Your task to perform on an android device: stop showing notifications on the lock screen Image 0: 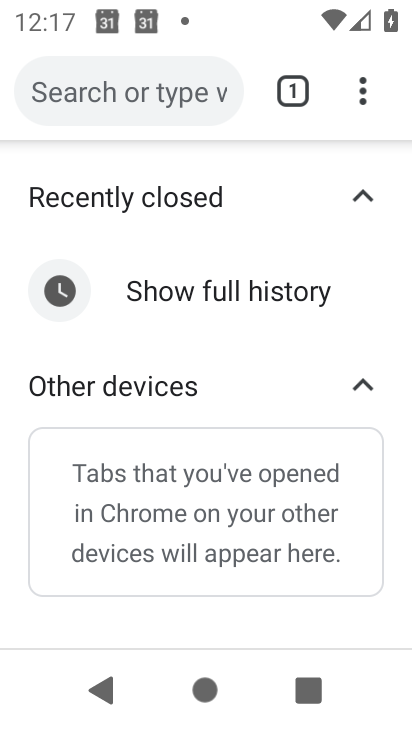
Step 0: press home button
Your task to perform on an android device: stop showing notifications on the lock screen Image 1: 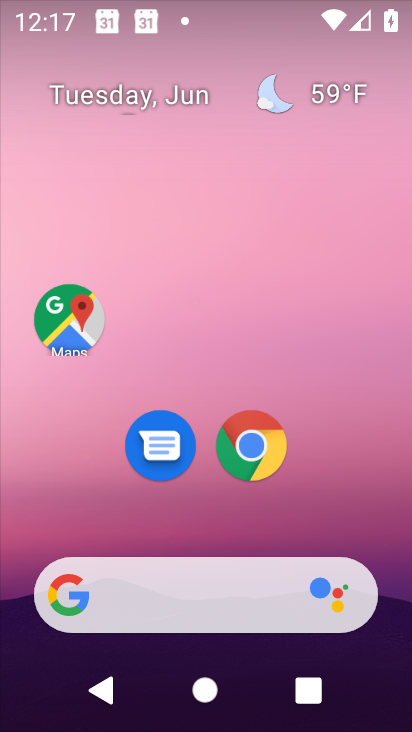
Step 1: drag from (169, 526) to (361, 24)
Your task to perform on an android device: stop showing notifications on the lock screen Image 2: 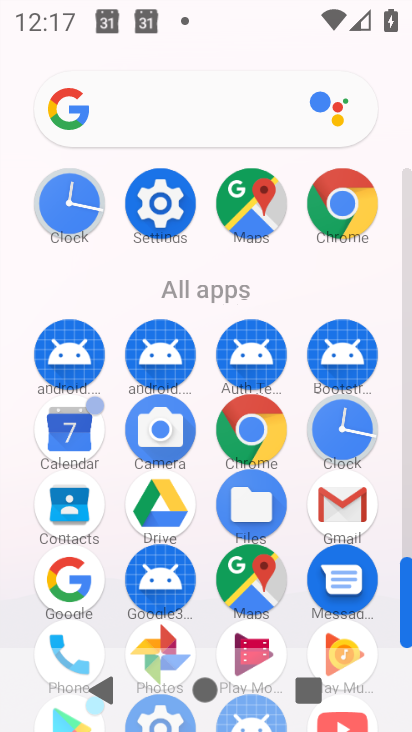
Step 2: click (148, 218)
Your task to perform on an android device: stop showing notifications on the lock screen Image 3: 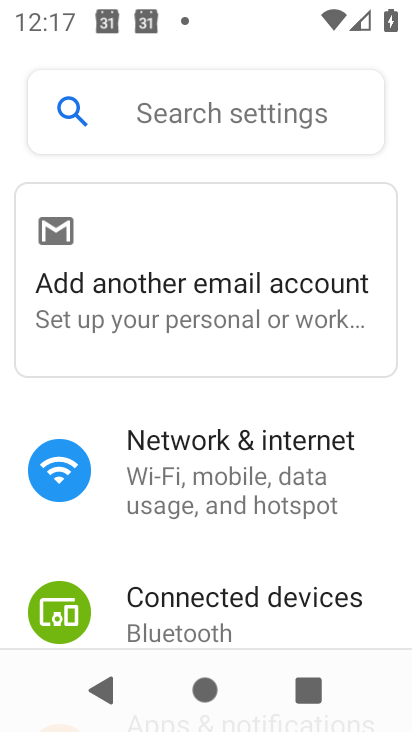
Step 3: drag from (215, 547) to (400, 391)
Your task to perform on an android device: stop showing notifications on the lock screen Image 4: 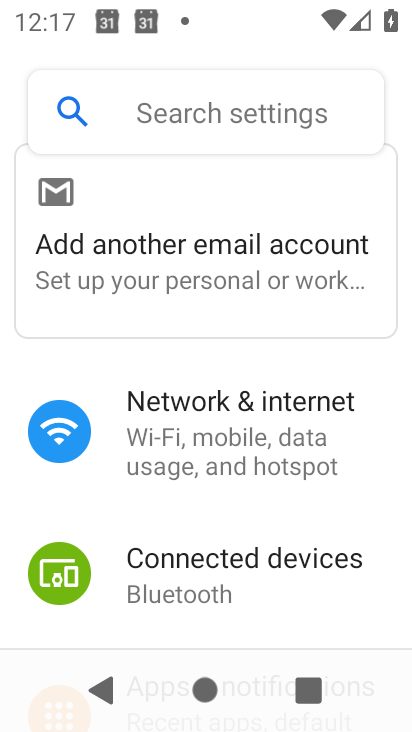
Step 4: click (189, 315)
Your task to perform on an android device: stop showing notifications on the lock screen Image 5: 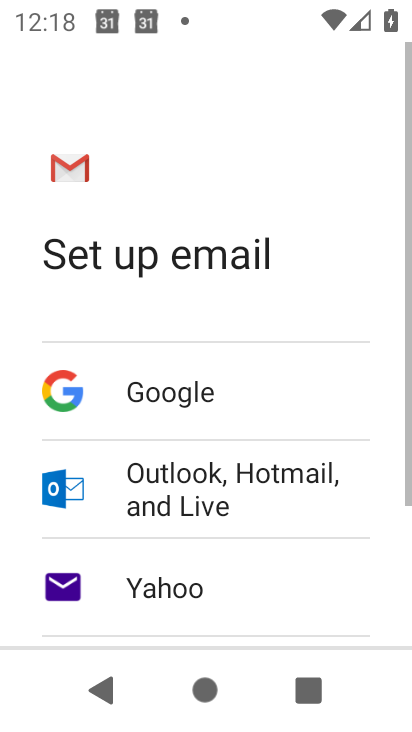
Step 5: press back button
Your task to perform on an android device: stop showing notifications on the lock screen Image 6: 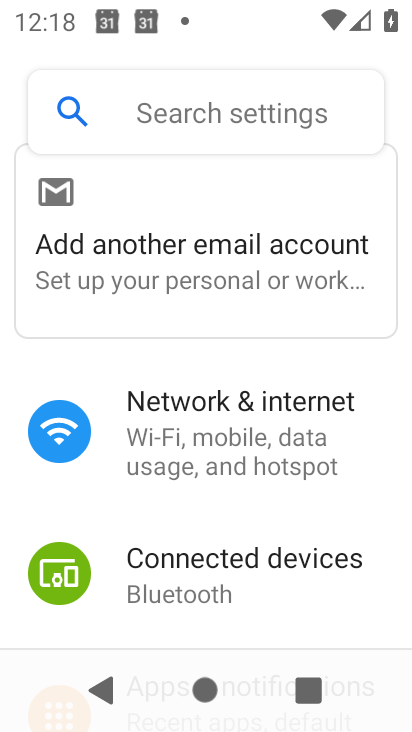
Step 6: drag from (76, 589) to (170, 46)
Your task to perform on an android device: stop showing notifications on the lock screen Image 7: 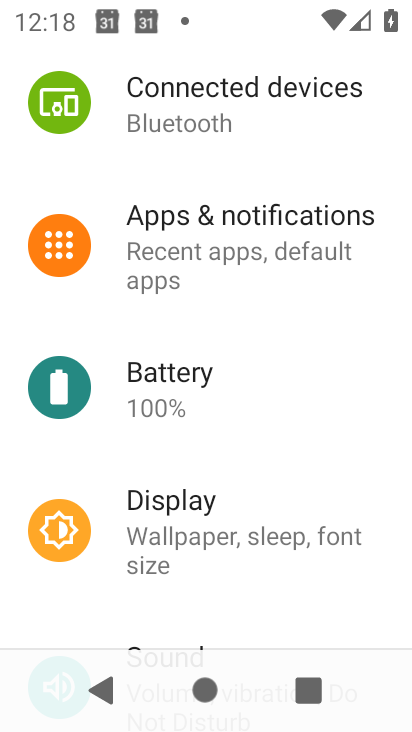
Step 7: click (213, 232)
Your task to perform on an android device: stop showing notifications on the lock screen Image 8: 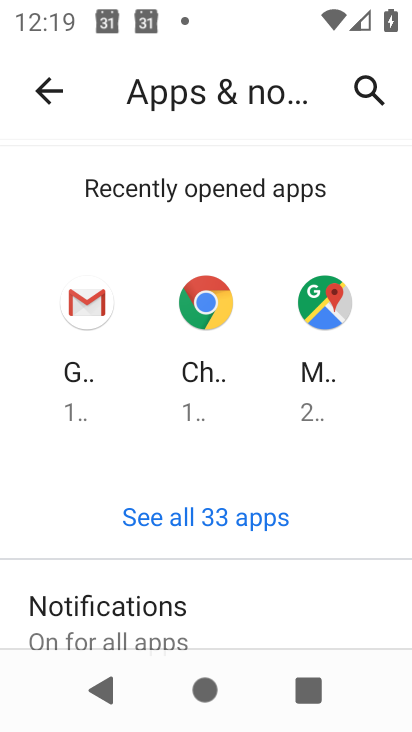
Step 8: click (191, 543)
Your task to perform on an android device: stop showing notifications on the lock screen Image 9: 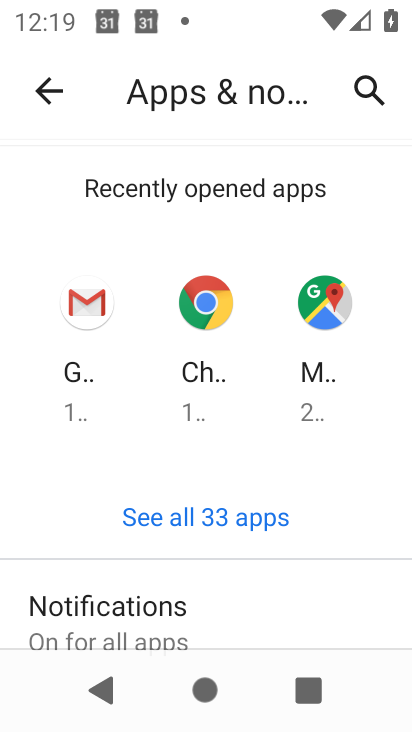
Step 9: drag from (191, 543) to (203, 130)
Your task to perform on an android device: stop showing notifications on the lock screen Image 10: 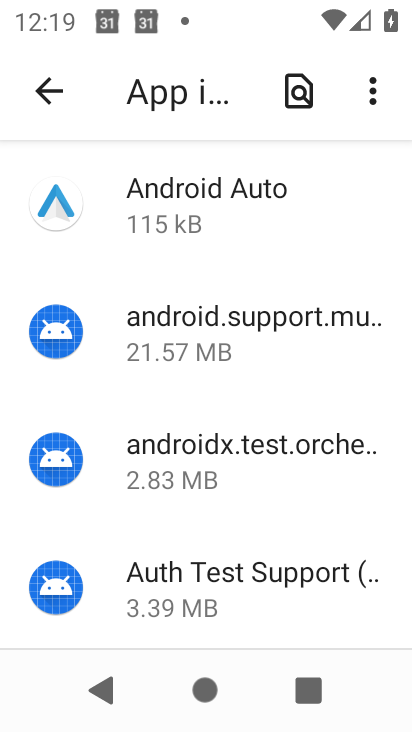
Step 10: drag from (158, 473) to (214, 3)
Your task to perform on an android device: stop showing notifications on the lock screen Image 11: 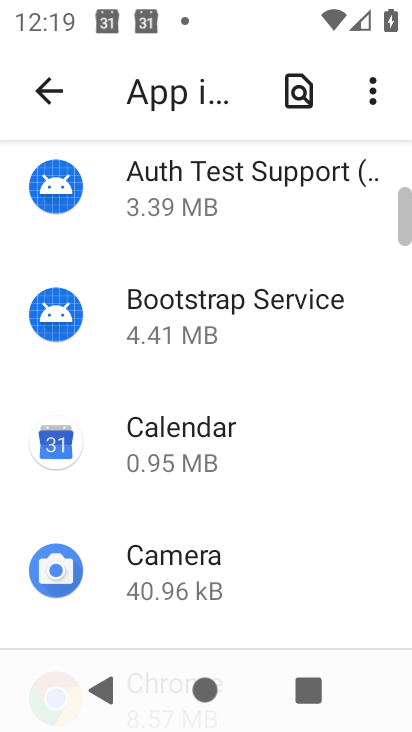
Step 11: drag from (177, 409) to (172, 106)
Your task to perform on an android device: stop showing notifications on the lock screen Image 12: 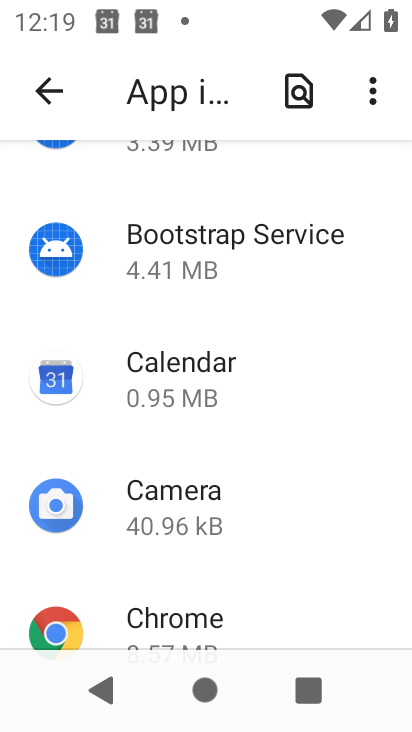
Step 12: drag from (105, 610) to (154, 55)
Your task to perform on an android device: stop showing notifications on the lock screen Image 13: 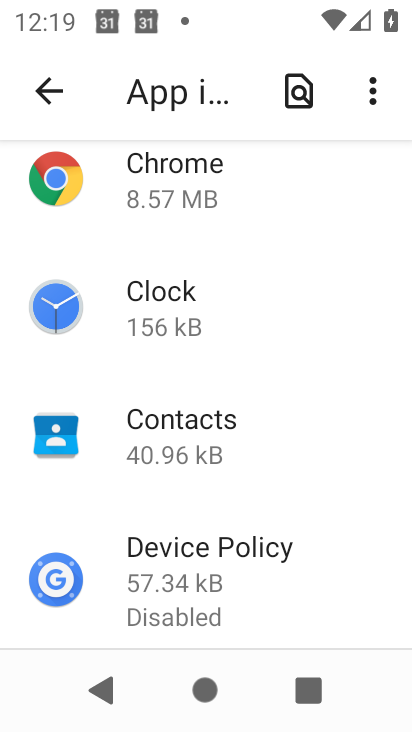
Step 13: drag from (110, 523) to (97, 50)
Your task to perform on an android device: stop showing notifications on the lock screen Image 14: 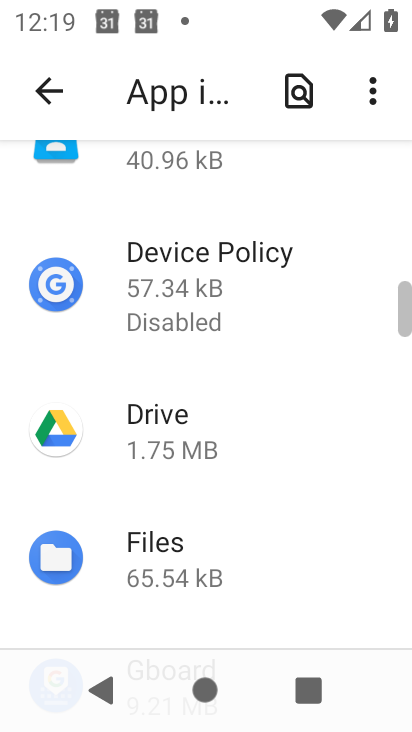
Step 14: drag from (95, 569) to (89, 65)
Your task to perform on an android device: stop showing notifications on the lock screen Image 15: 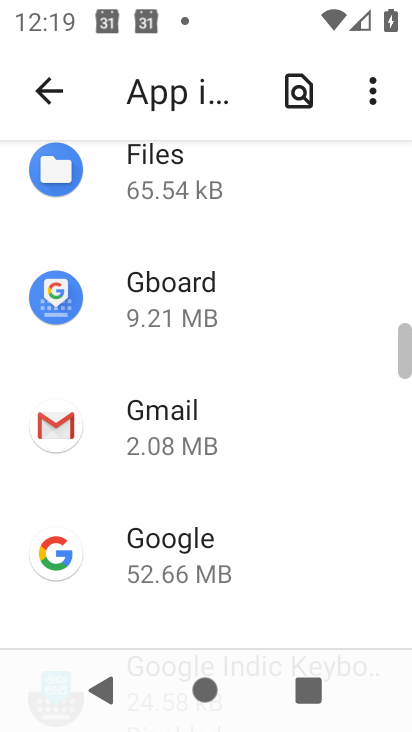
Step 15: drag from (108, 599) to (123, 180)
Your task to perform on an android device: stop showing notifications on the lock screen Image 16: 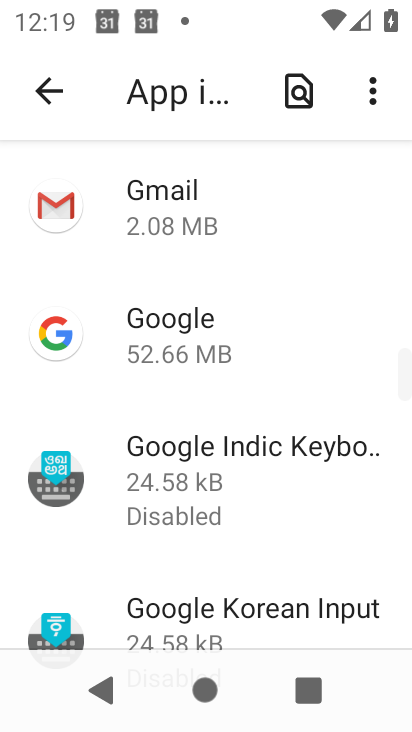
Step 16: drag from (104, 592) to (101, 174)
Your task to perform on an android device: stop showing notifications on the lock screen Image 17: 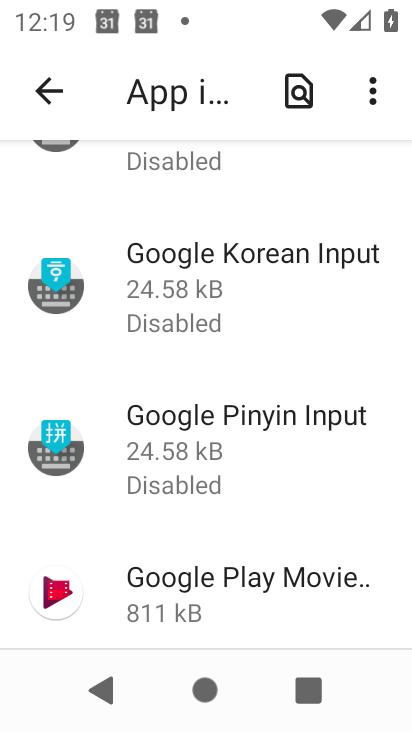
Step 17: drag from (187, 530) to (139, 46)
Your task to perform on an android device: stop showing notifications on the lock screen Image 18: 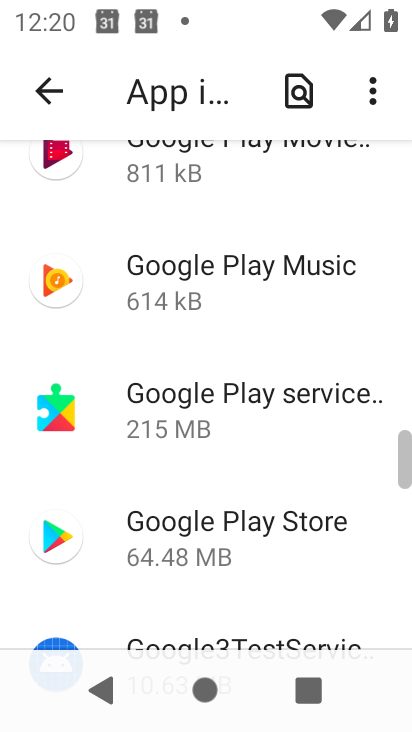
Step 18: drag from (126, 508) to (240, 101)
Your task to perform on an android device: stop showing notifications on the lock screen Image 19: 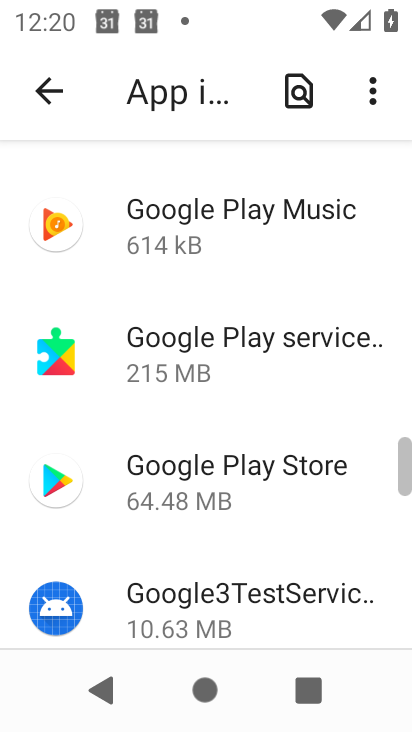
Step 19: drag from (85, 552) to (220, 21)
Your task to perform on an android device: stop showing notifications on the lock screen Image 20: 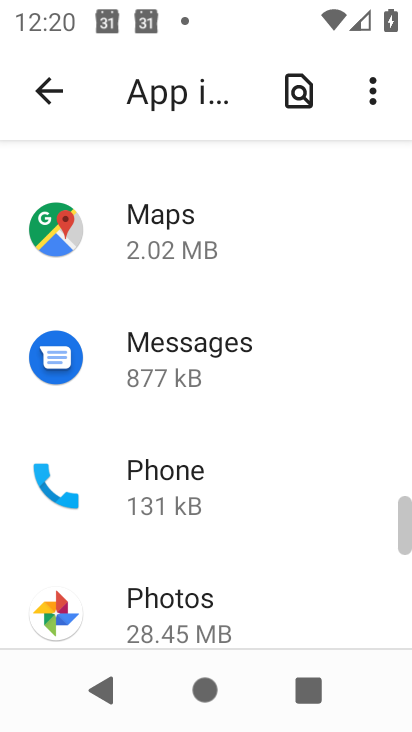
Step 20: drag from (149, 587) to (193, 77)
Your task to perform on an android device: stop showing notifications on the lock screen Image 21: 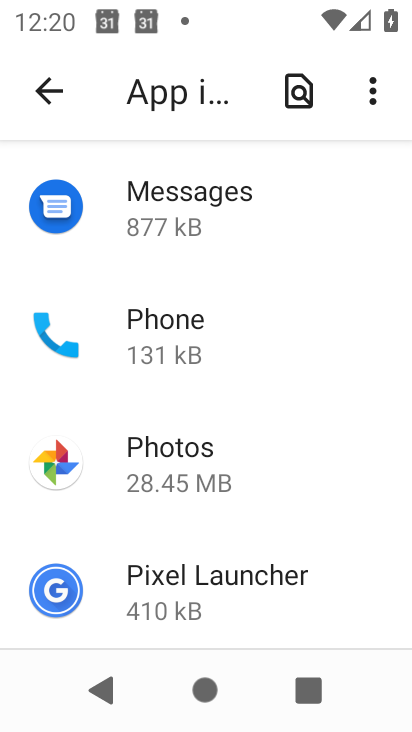
Step 21: drag from (183, 594) to (197, 133)
Your task to perform on an android device: stop showing notifications on the lock screen Image 22: 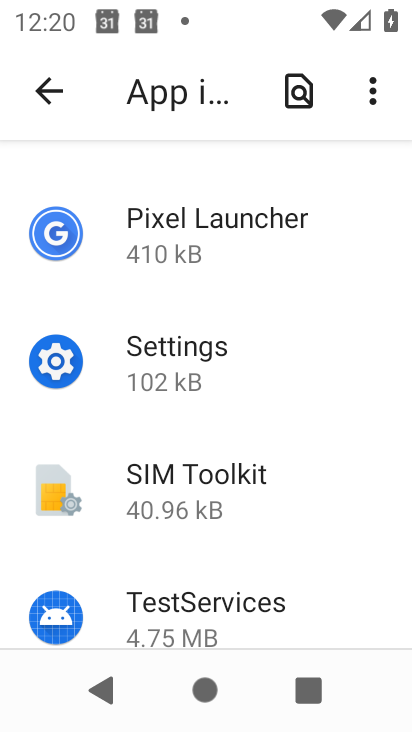
Step 22: drag from (170, 541) to (288, 40)
Your task to perform on an android device: stop showing notifications on the lock screen Image 23: 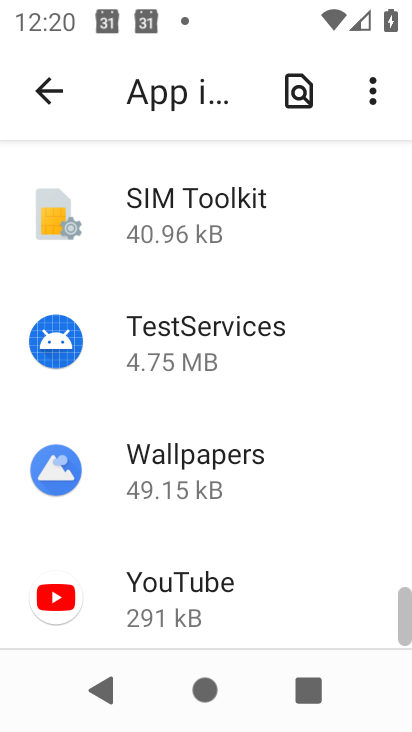
Step 23: drag from (97, 602) to (100, 71)
Your task to perform on an android device: stop showing notifications on the lock screen Image 24: 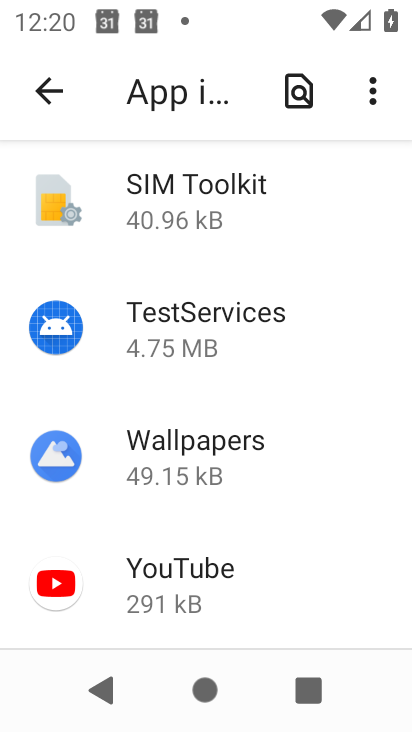
Step 24: click (42, 97)
Your task to perform on an android device: stop showing notifications on the lock screen Image 25: 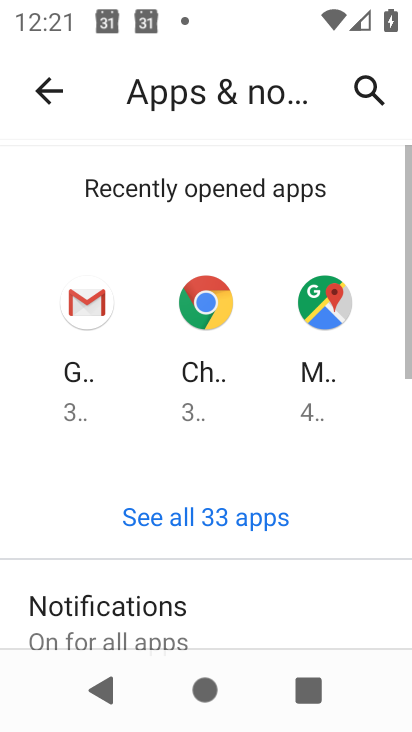
Step 25: click (109, 595)
Your task to perform on an android device: stop showing notifications on the lock screen Image 26: 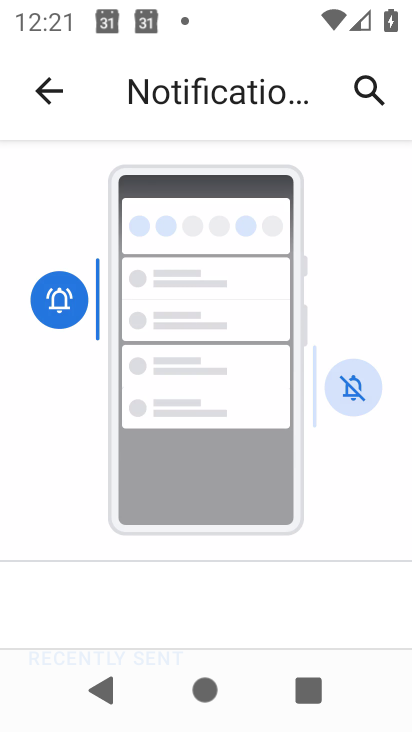
Step 26: drag from (151, 586) to (203, 60)
Your task to perform on an android device: stop showing notifications on the lock screen Image 27: 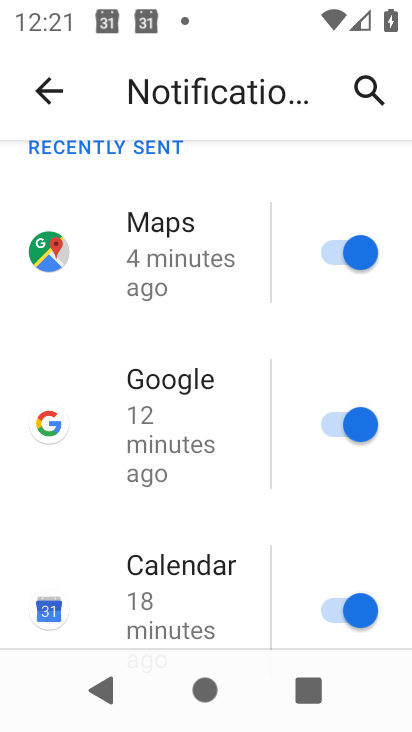
Step 27: drag from (194, 588) to (171, 385)
Your task to perform on an android device: stop showing notifications on the lock screen Image 28: 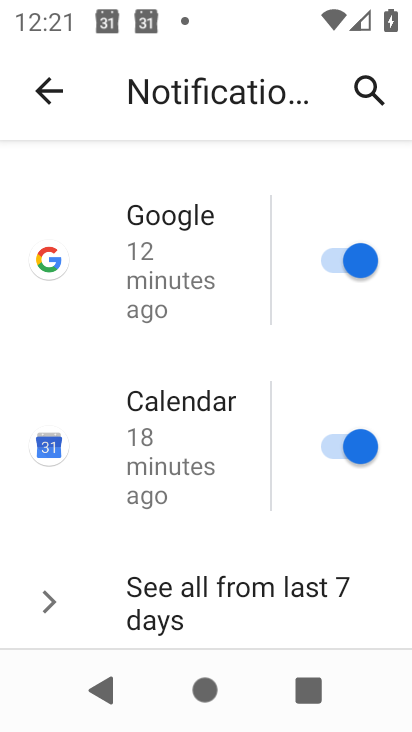
Step 28: drag from (172, 613) to (285, 48)
Your task to perform on an android device: stop showing notifications on the lock screen Image 29: 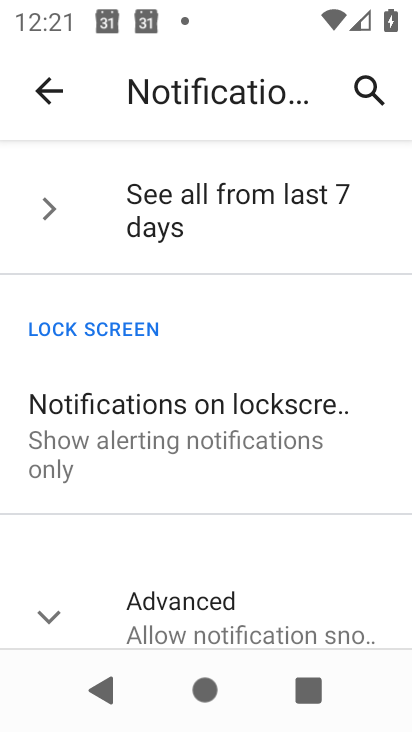
Step 29: click (131, 479)
Your task to perform on an android device: stop showing notifications on the lock screen Image 30: 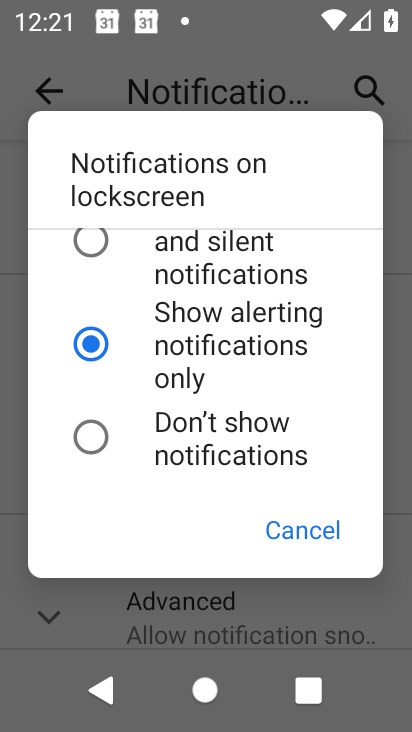
Step 30: click (113, 437)
Your task to perform on an android device: stop showing notifications on the lock screen Image 31: 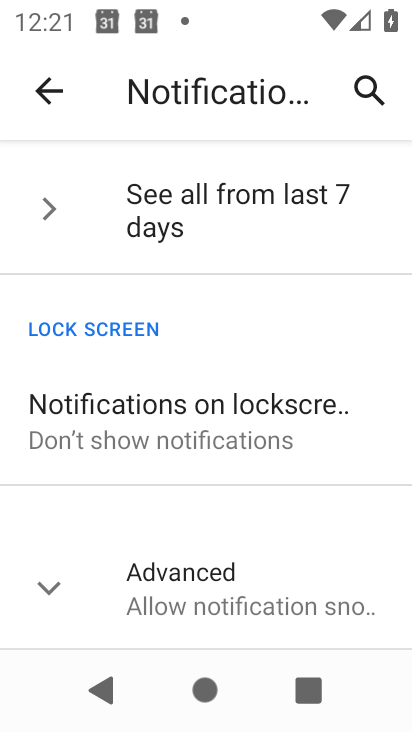
Step 31: task complete